Your task to perform on an android device: all mails in gmail Image 0: 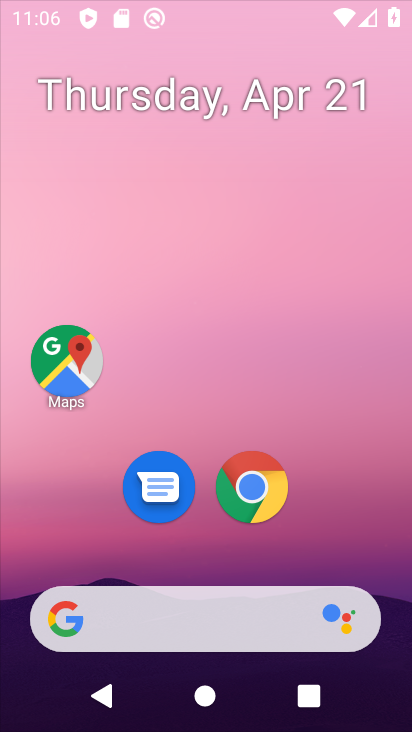
Step 0: click (283, 495)
Your task to perform on an android device: all mails in gmail Image 1: 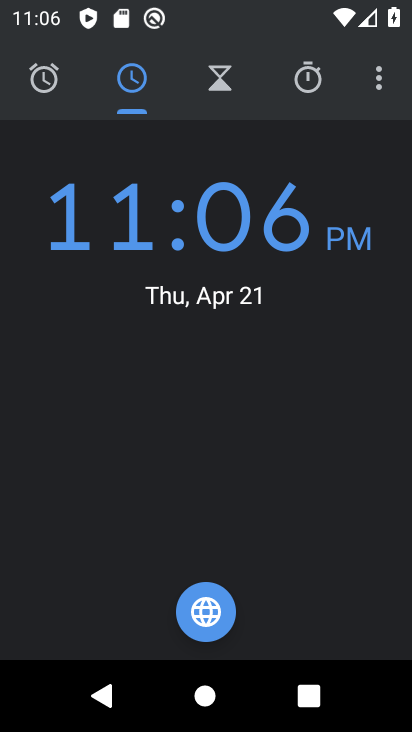
Step 1: press back button
Your task to perform on an android device: all mails in gmail Image 2: 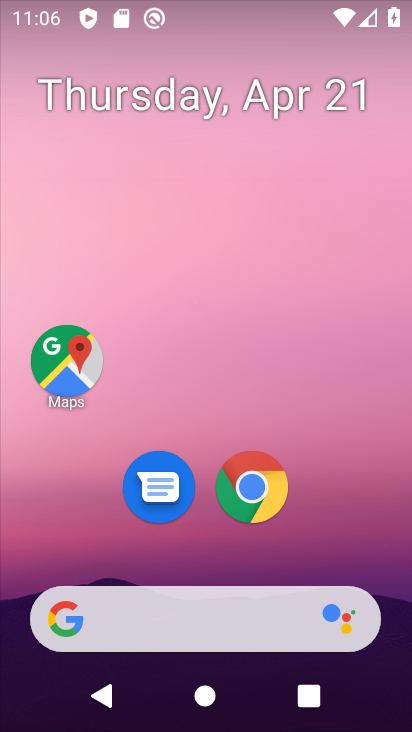
Step 2: drag from (156, 584) to (274, 63)
Your task to perform on an android device: all mails in gmail Image 3: 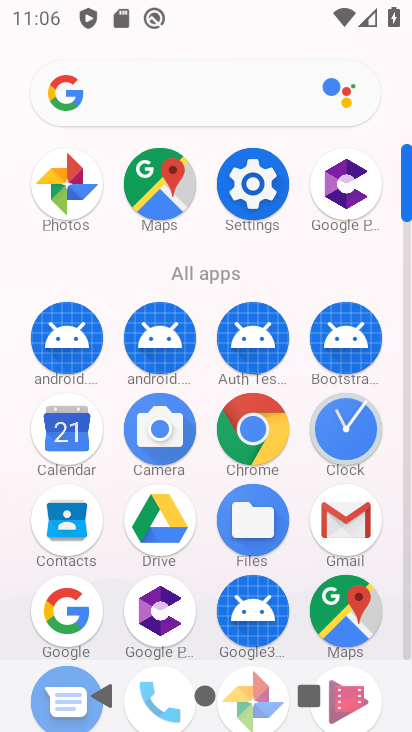
Step 3: click (332, 517)
Your task to perform on an android device: all mails in gmail Image 4: 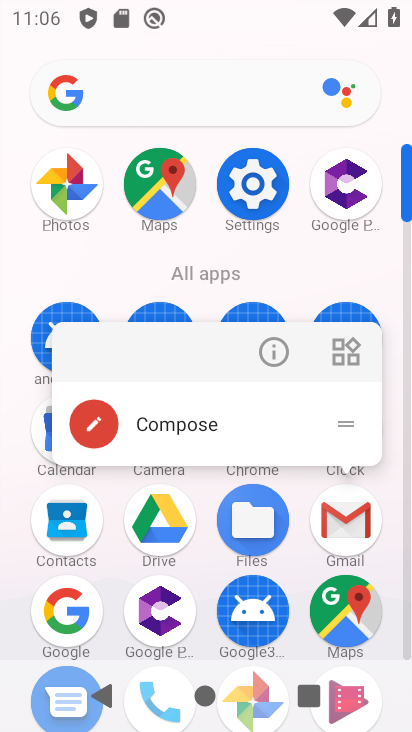
Step 4: click (348, 520)
Your task to perform on an android device: all mails in gmail Image 5: 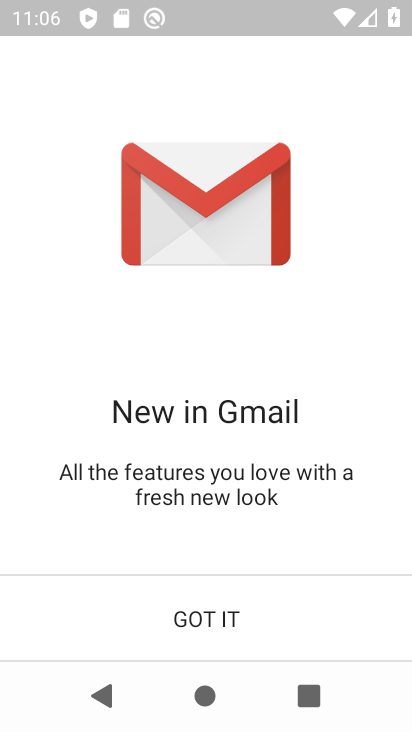
Step 5: click (255, 633)
Your task to perform on an android device: all mails in gmail Image 6: 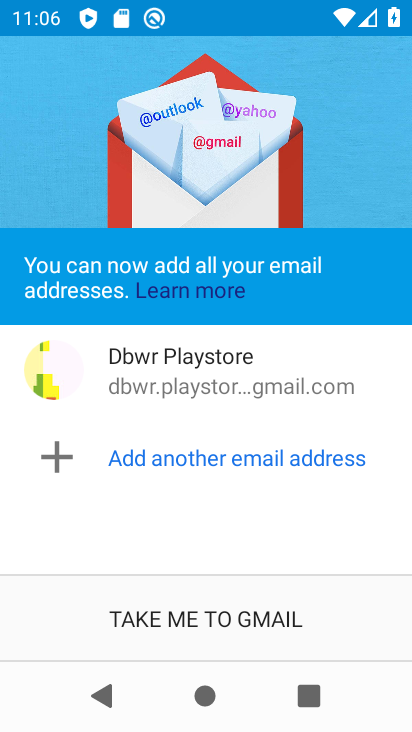
Step 6: click (255, 633)
Your task to perform on an android device: all mails in gmail Image 7: 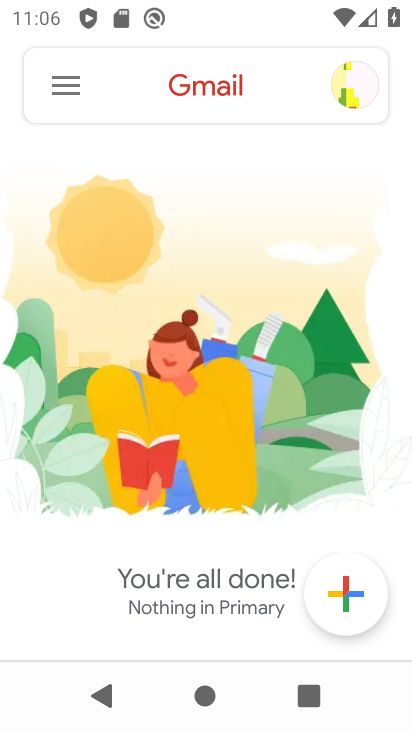
Step 7: click (74, 93)
Your task to perform on an android device: all mails in gmail Image 8: 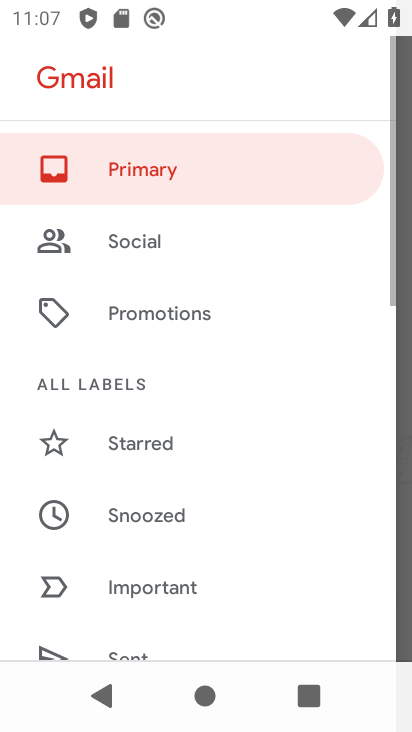
Step 8: drag from (157, 581) to (260, 191)
Your task to perform on an android device: all mails in gmail Image 9: 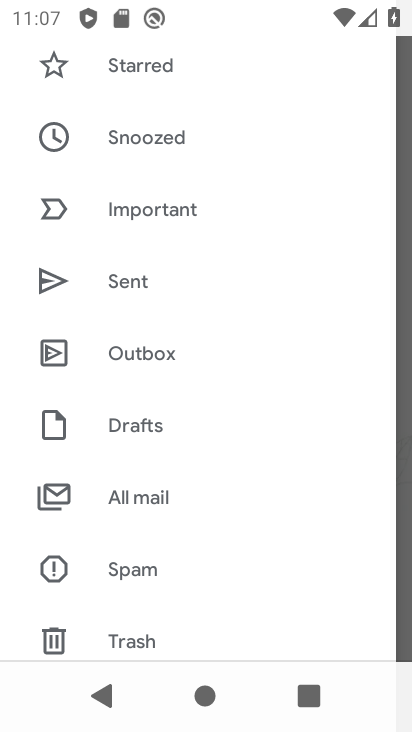
Step 9: click (173, 493)
Your task to perform on an android device: all mails in gmail Image 10: 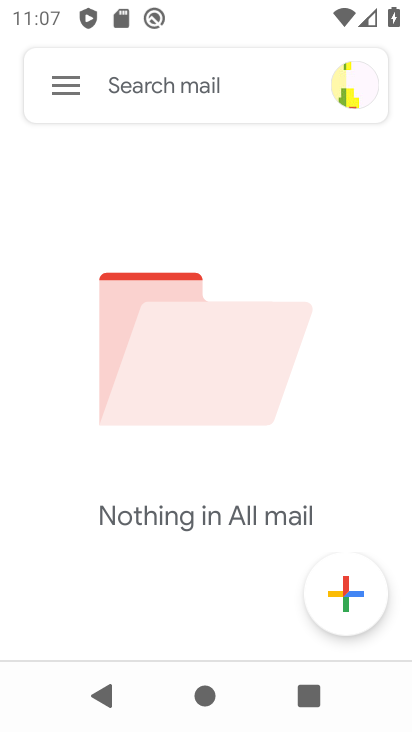
Step 10: task complete